Your task to perform on an android device: check out phone information Image 0: 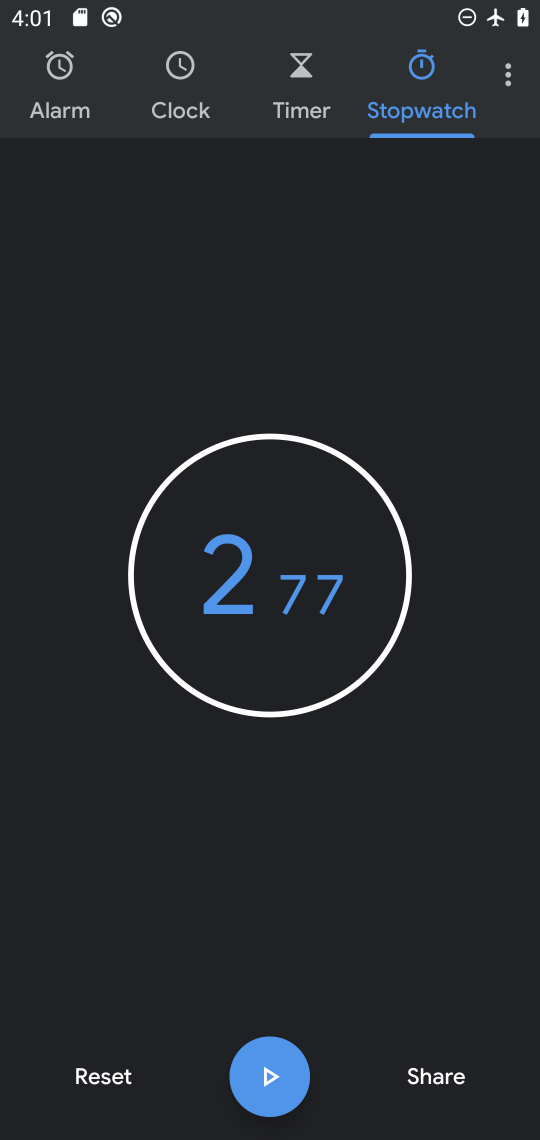
Step 0: press home button
Your task to perform on an android device: check out phone information Image 1: 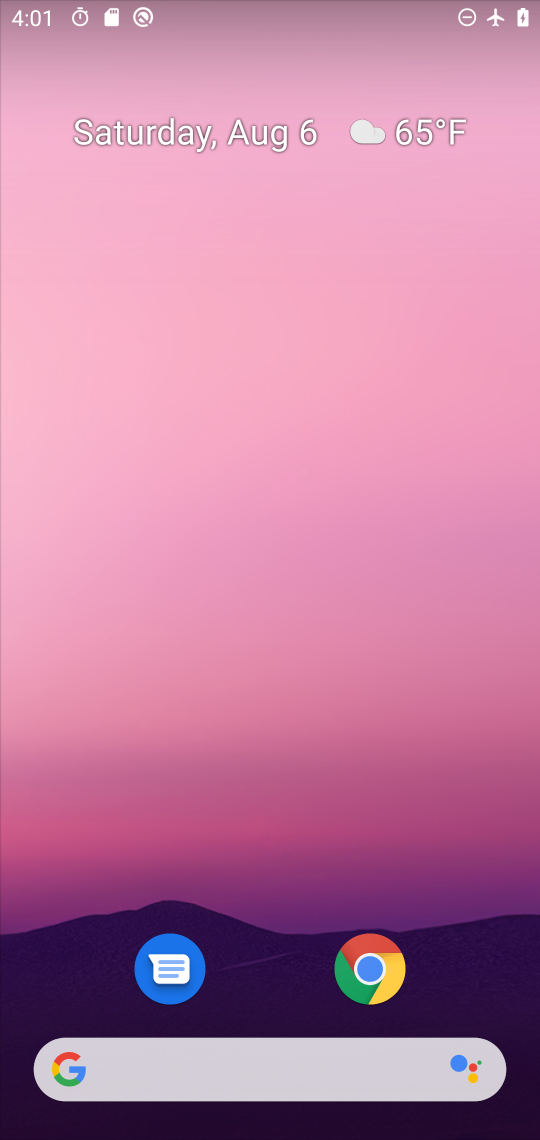
Step 1: drag from (292, 919) to (279, 143)
Your task to perform on an android device: check out phone information Image 2: 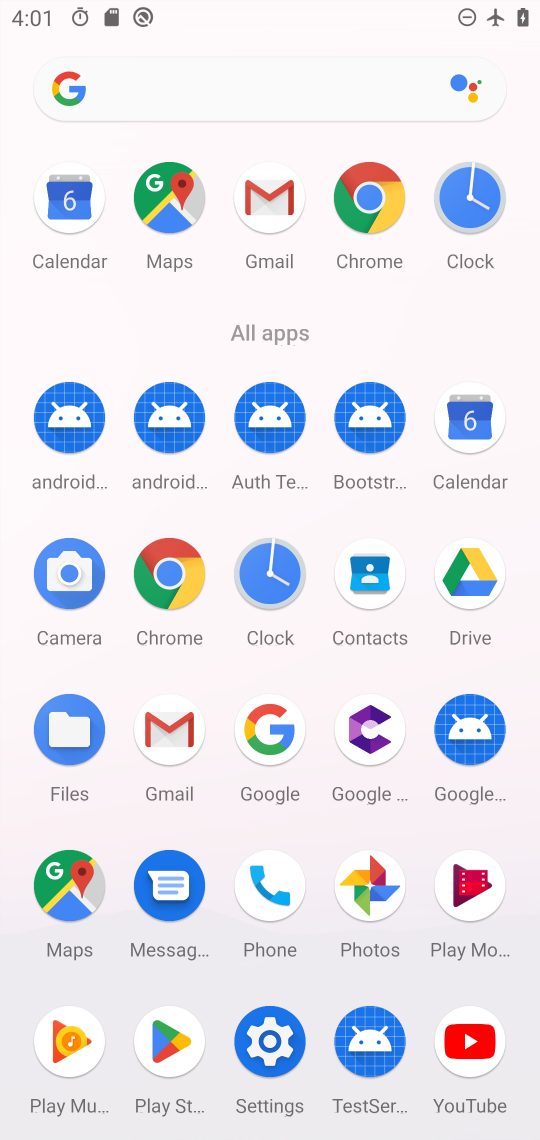
Step 2: click (278, 1035)
Your task to perform on an android device: check out phone information Image 3: 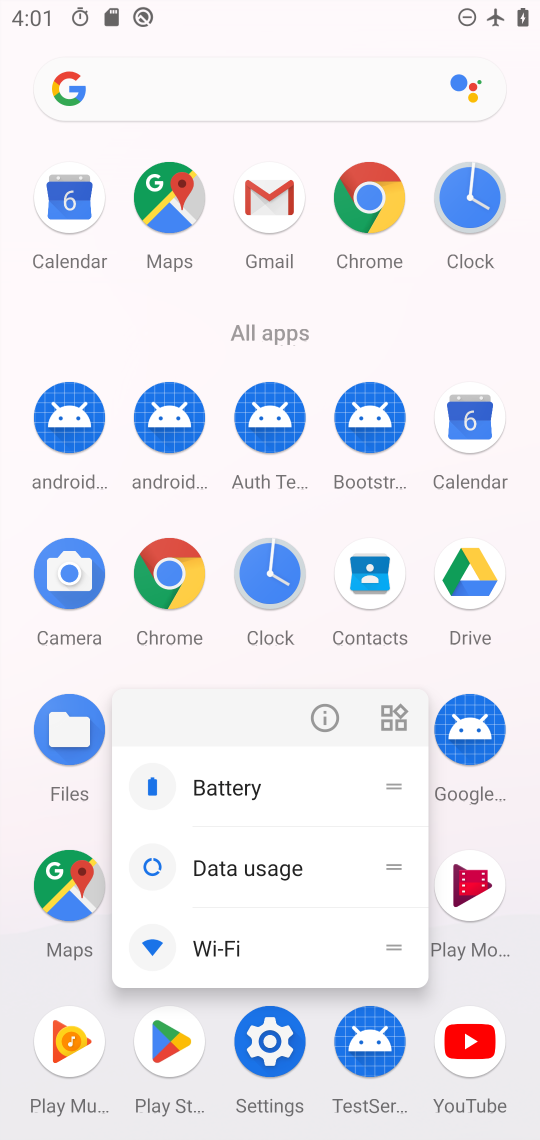
Step 3: click (261, 1020)
Your task to perform on an android device: check out phone information Image 4: 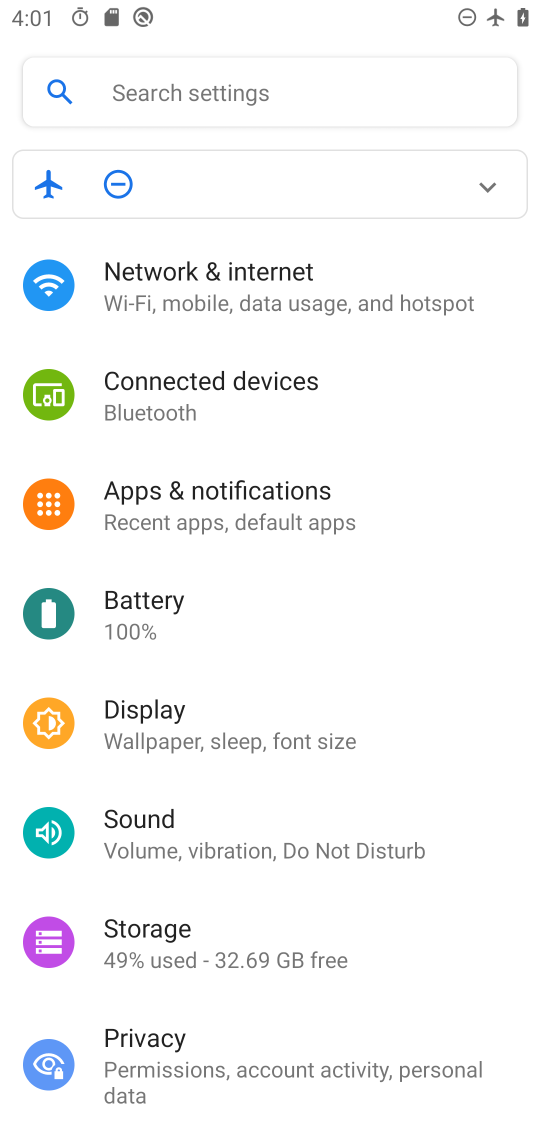
Step 4: drag from (282, 1018) to (283, 313)
Your task to perform on an android device: check out phone information Image 5: 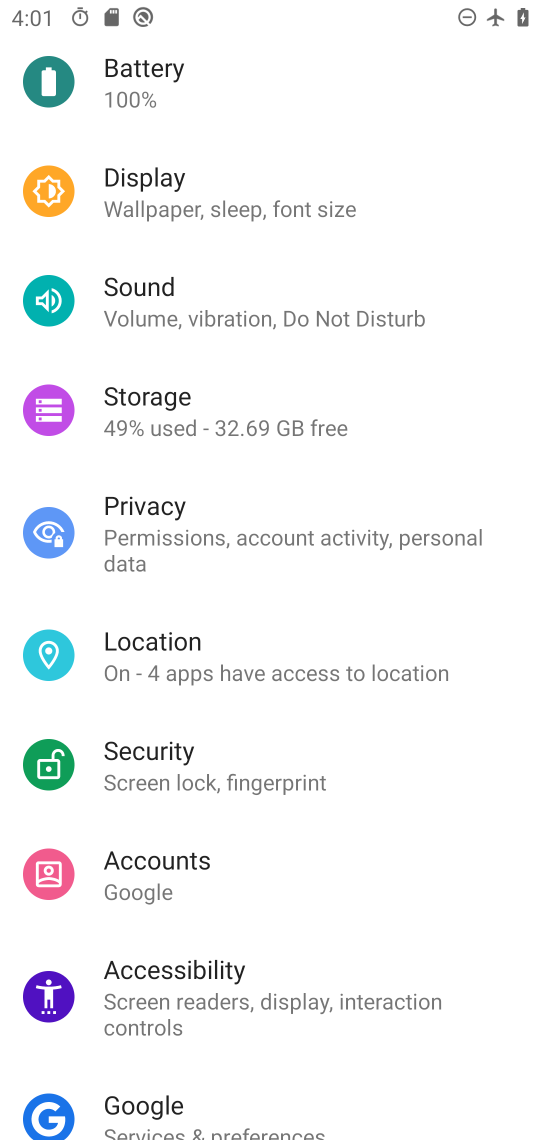
Step 5: drag from (250, 686) to (270, 333)
Your task to perform on an android device: check out phone information Image 6: 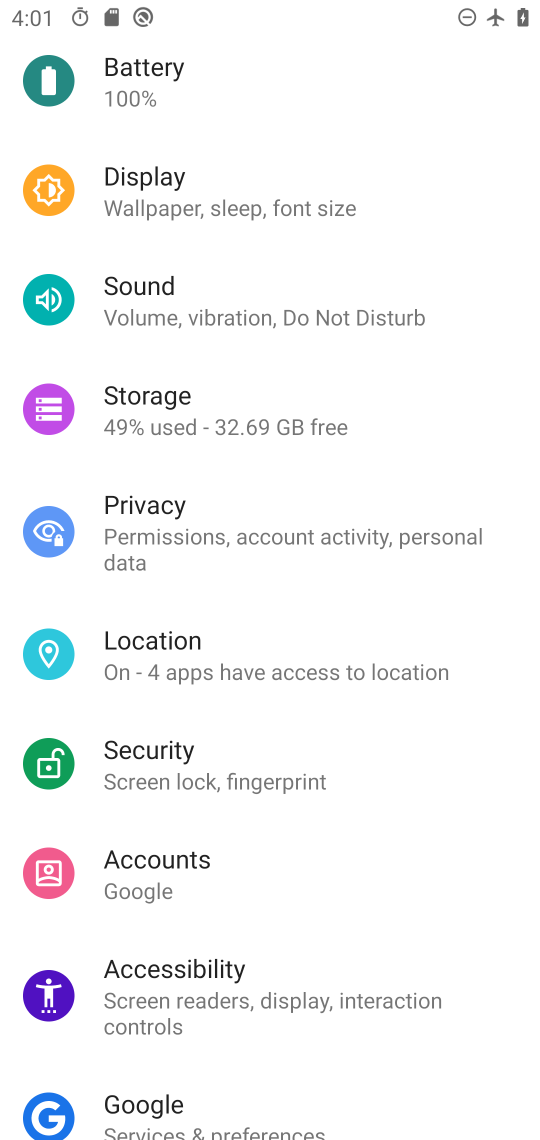
Step 6: drag from (132, 926) to (349, 199)
Your task to perform on an android device: check out phone information Image 7: 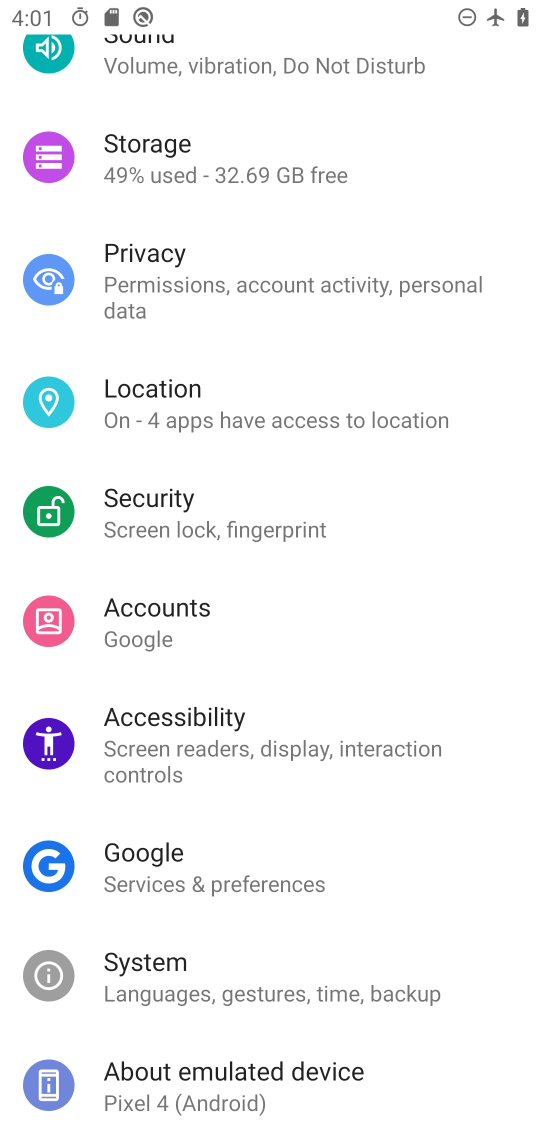
Step 7: click (170, 1064)
Your task to perform on an android device: check out phone information Image 8: 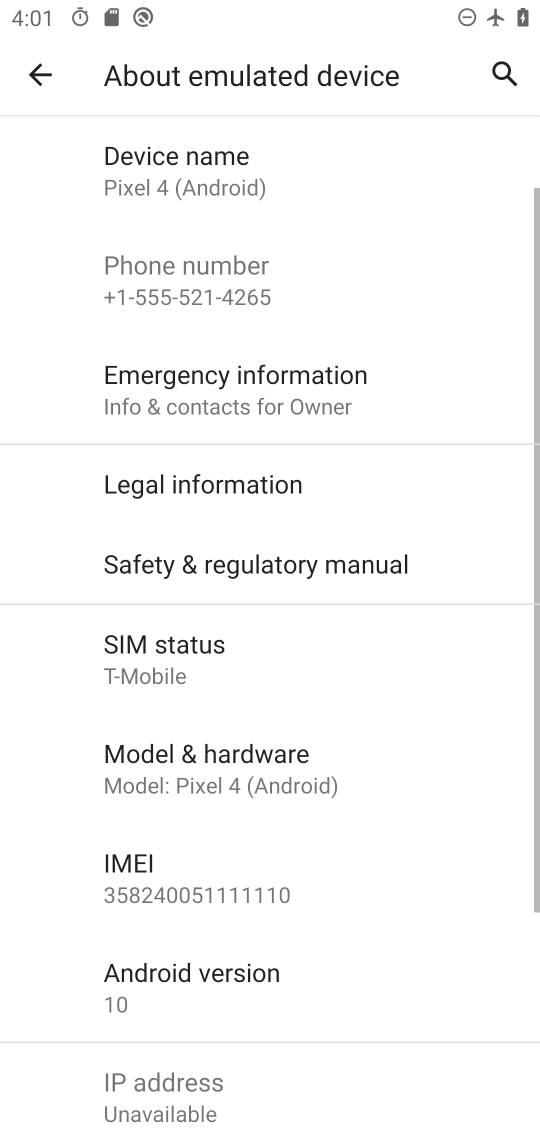
Step 8: task complete